Your task to perform on an android device: Go to Google maps Image 0: 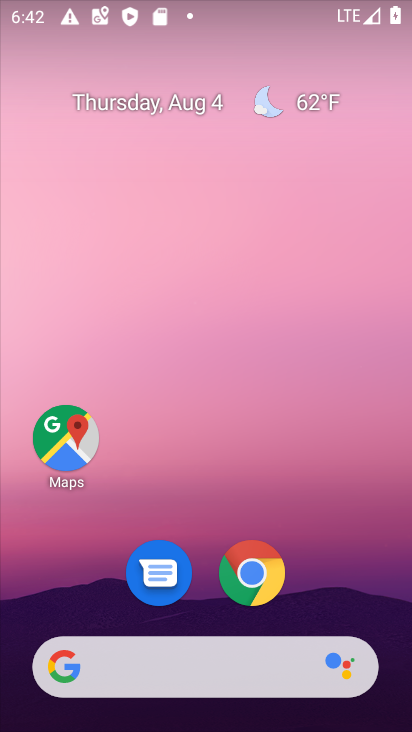
Step 0: press home button
Your task to perform on an android device: Go to Google maps Image 1: 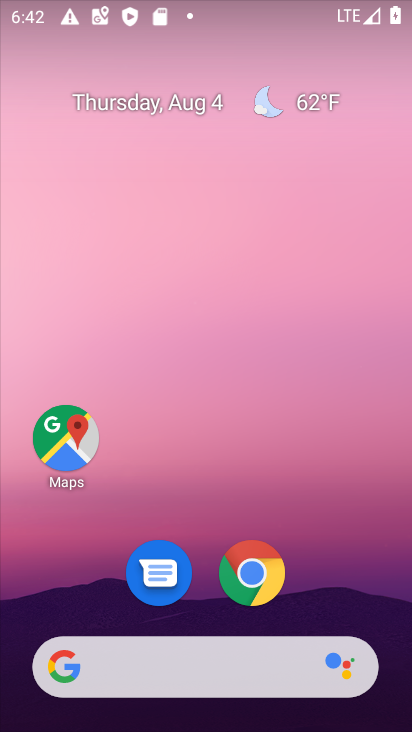
Step 1: click (60, 440)
Your task to perform on an android device: Go to Google maps Image 2: 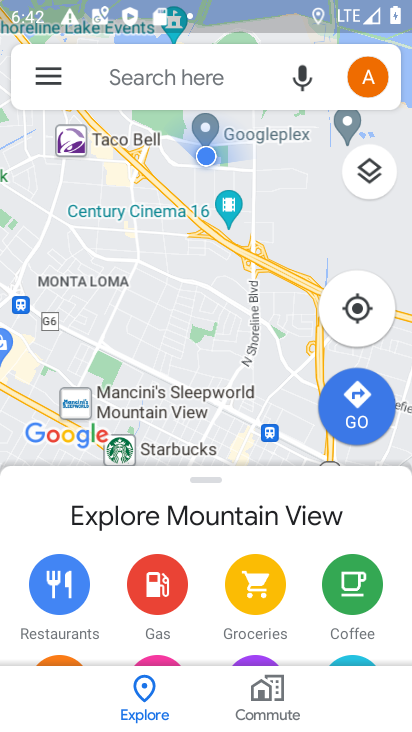
Step 2: task complete